Your task to perform on an android device: choose inbox layout in the gmail app Image 0: 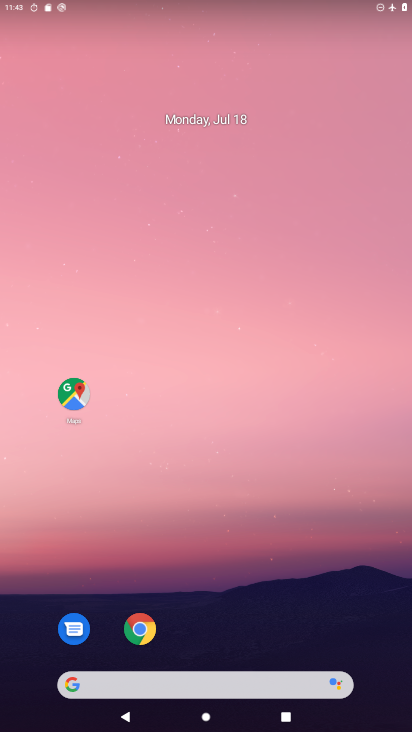
Step 0: drag from (297, 563) to (243, 80)
Your task to perform on an android device: choose inbox layout in the gmail app Image 1: 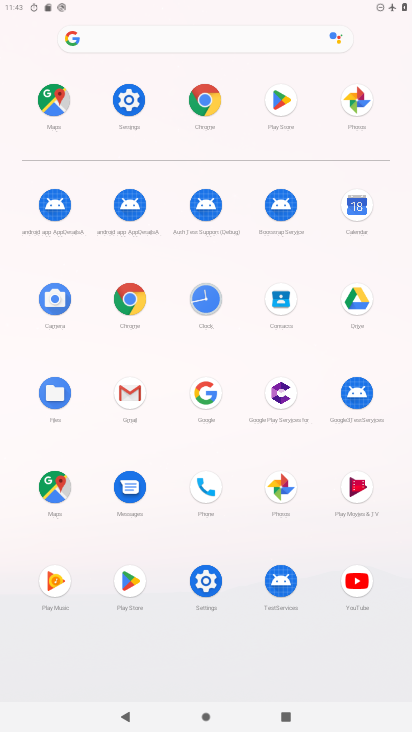
Step 1: click (138, 403)
Your task to perform on an android device: choose inbox layout in the gmail app Image 2: 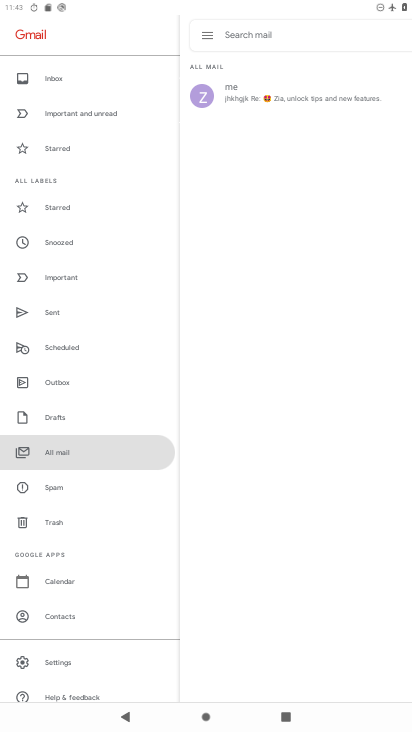
Step 2: click (48, 659)
Your task to perform on an android device: choose inbox layout in the gmail app Image 3: 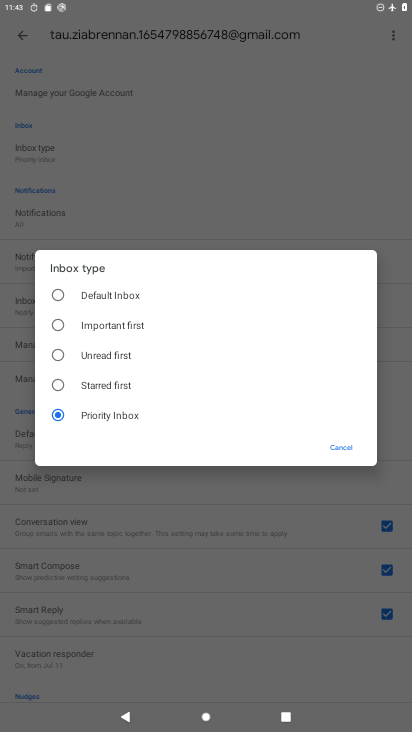
Step 3: task complete